Your task to perform on an android device: turn on priority inbox in the gmail app Image 0: 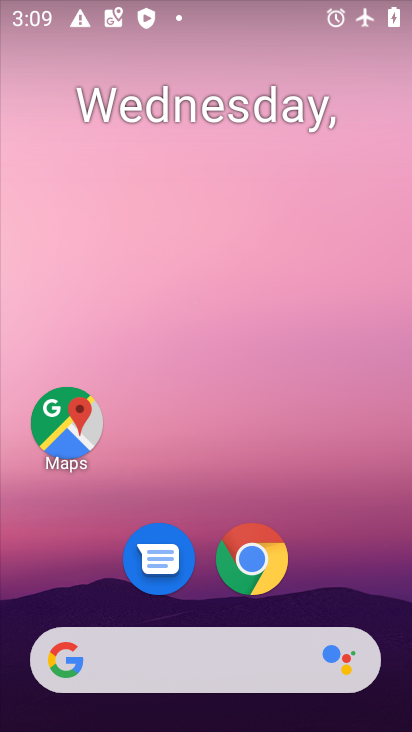
Step 0: drag from (201, 591) to (207, 73)
Your task to perform on an android device: turn on priority inbox in the gmail app Image 1: 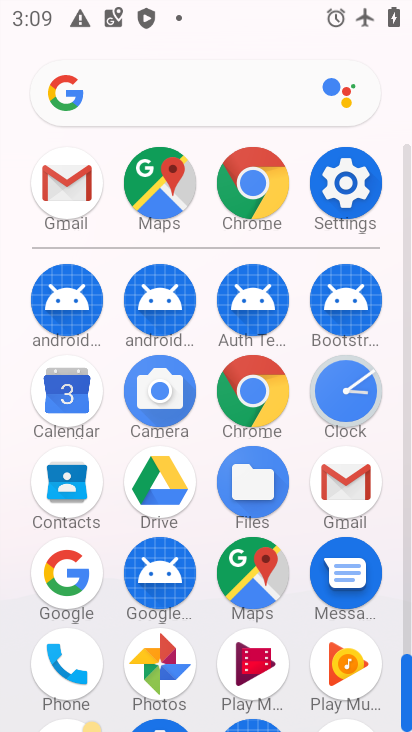
Step 1: click (349, 483)
Your task to perform on an android device: turn on priority inbox in the gmail app Image 2: 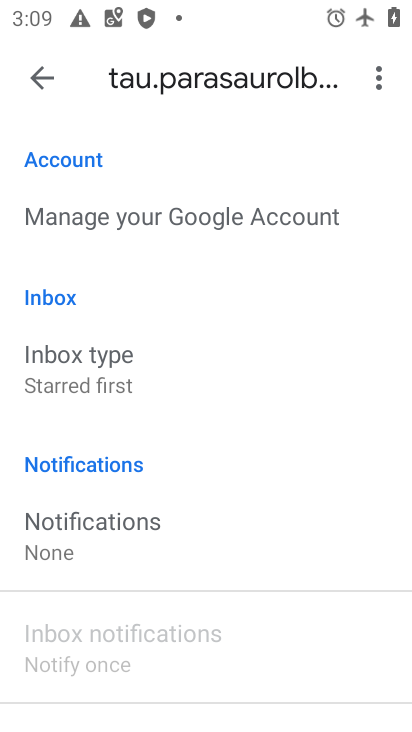
Step 2: click (103, 376)
Your task to perform on an android device: turn on priority inbox in the gmail app Image 3: 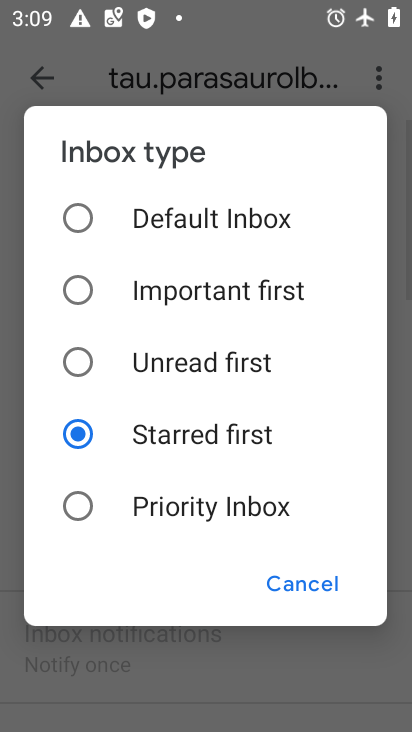
Step 3: click (76, 501)
Your task to perform on an android device: turn on priority inbox in the gmail app Image 4: 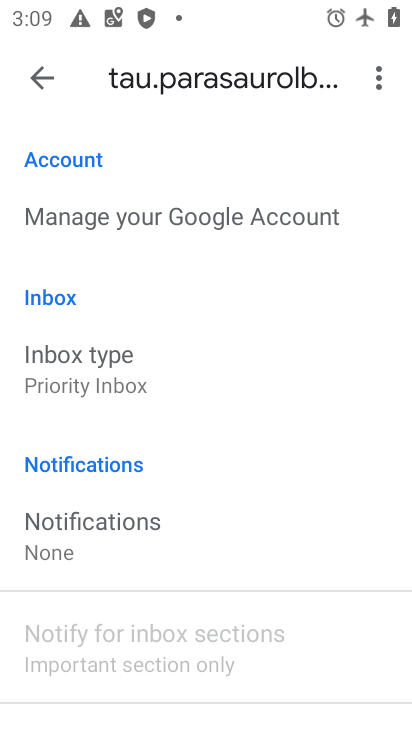
Step 4: task complete